Your task to perform on an android device: Go to accessibility settings Image 0: 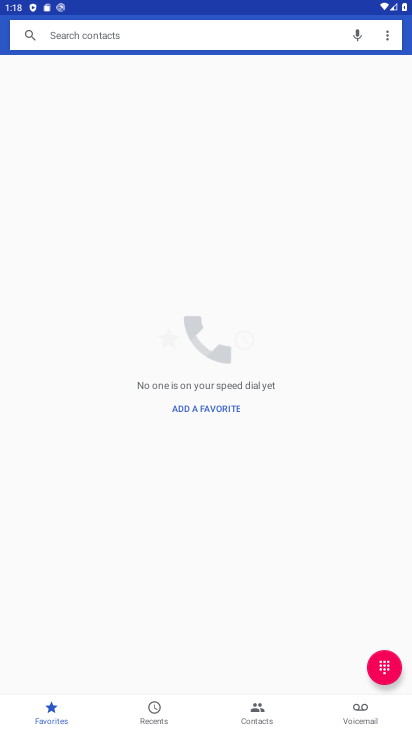
Step 0: press home button
Your task to perform on an android device: Go to accessibility settings Image 1: 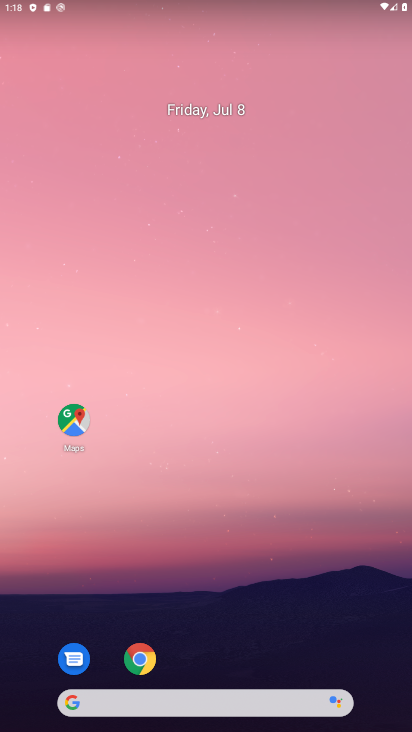
Step 1: drag from (321, 640) to (263, 253)
Your task to perform on an android device: Go to accessibility settings Image 2: 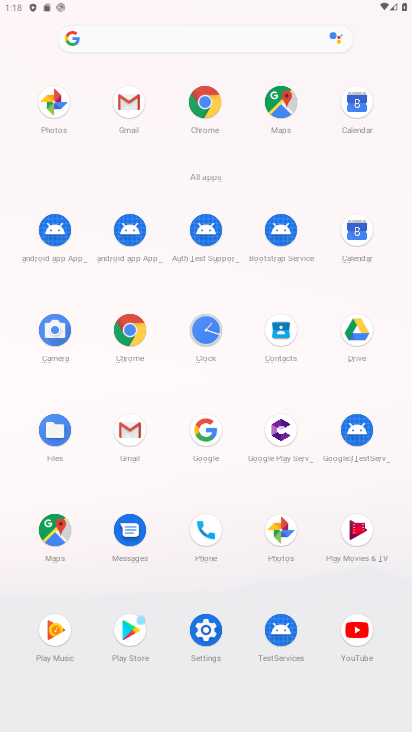
Step 2: click (206, 639)
Your task to perform on an android device: Go to accessibility settings Image 3: 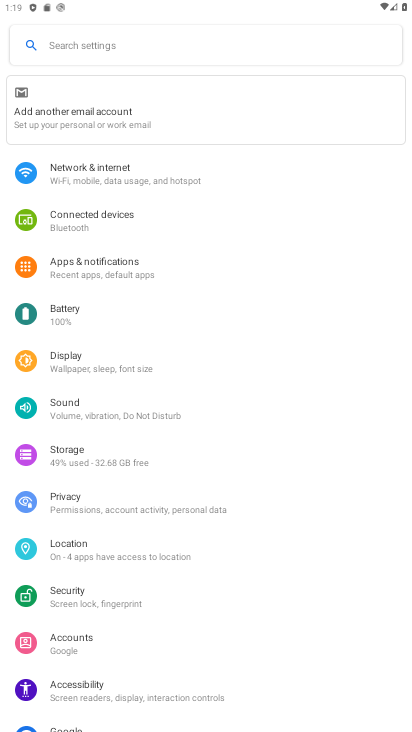
Step 3: drag from (172, 419) to (159, 263)
Your task to perform on an android device: Go to accessibility settings Image 4: 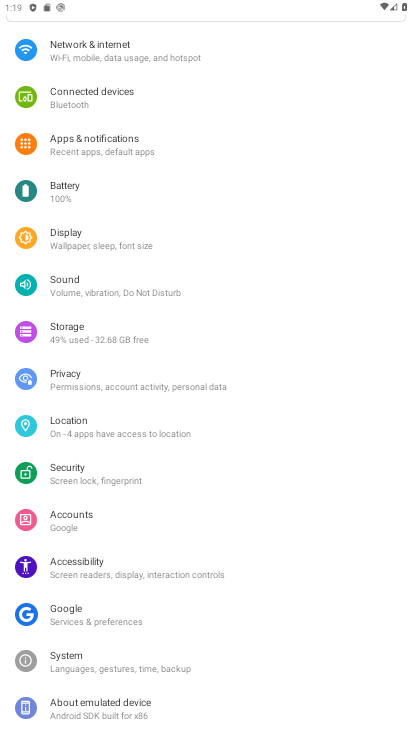
Step 4: click (110, 565)
Your task to perform on an android device: Go to accessibility settings Image 5: 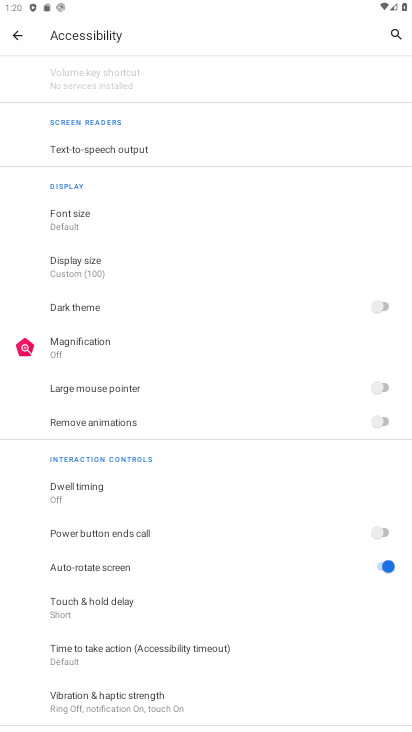
Step 5: task complete